Your task to perform on an android device: What is the news today? Image 0: 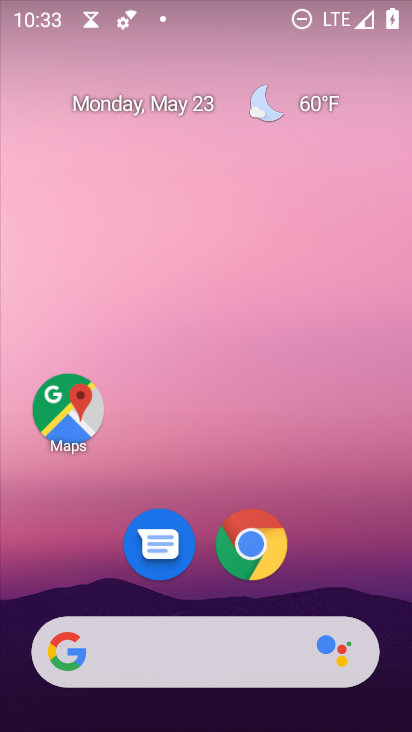
Step 0: click (262, 567)
Your task to perform on an android device: What is the news today? Image 1: 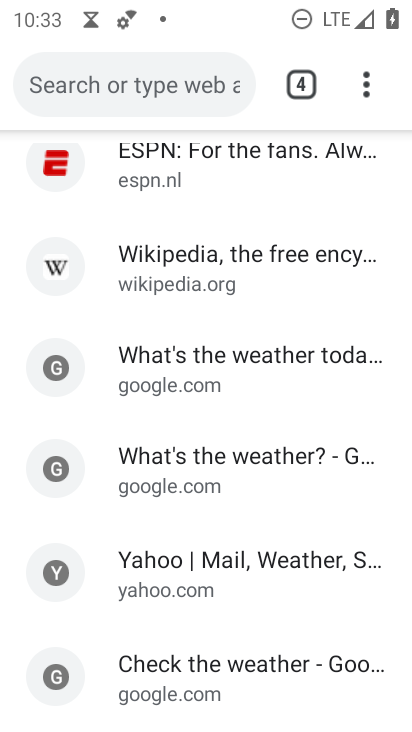
Step 1: click (303, 92)
Your task to perform on an android device: What is the news today? Image 2: 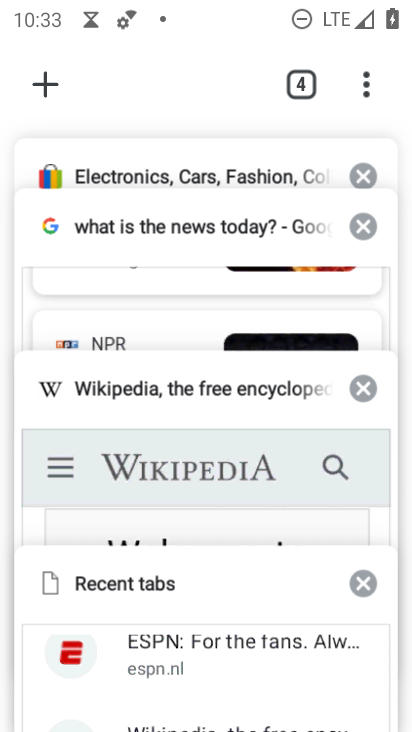
Step 2: click (241, 275)
Your task to perform on an android device: What is the news today? Image 3: 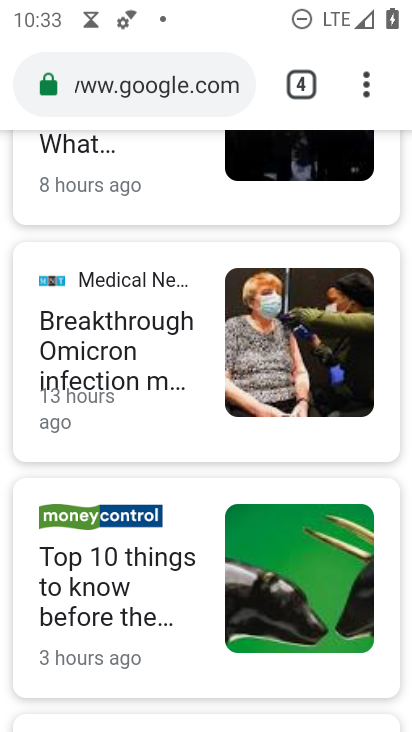
Step 3: task complete